Your task to perform on an android device: allow notifications from all sites in the chrome app Image 0: 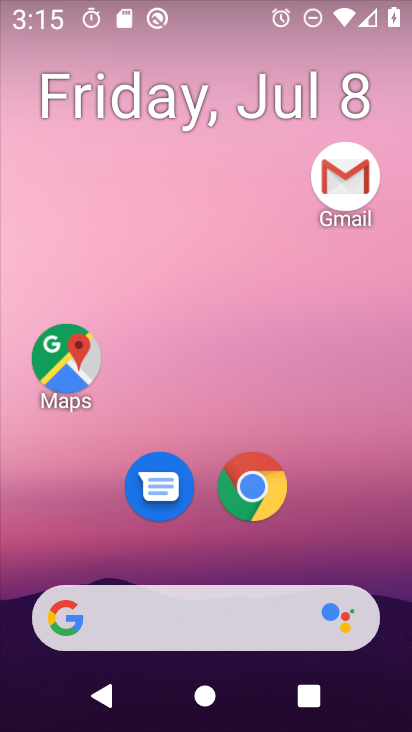
Step 0: drag from (324, 539) to (355, 148)
Your task to perform on an android device: allow notifications from all sites in the chrome app Image 1: 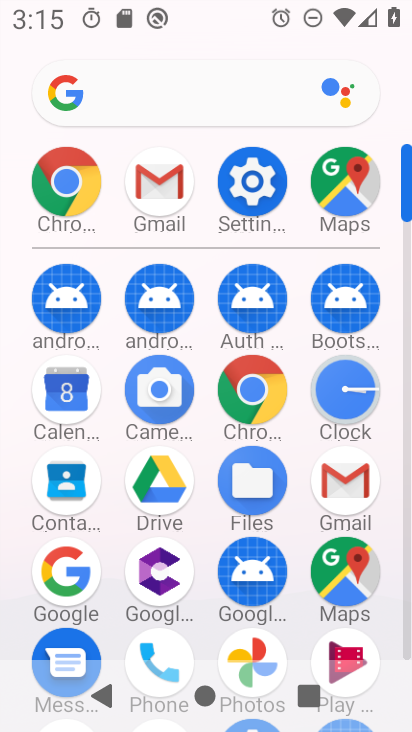
Step 1: click (268, 388)
Your task to perform on an android device: allow notifications from all sites in the chrome app Image 2: 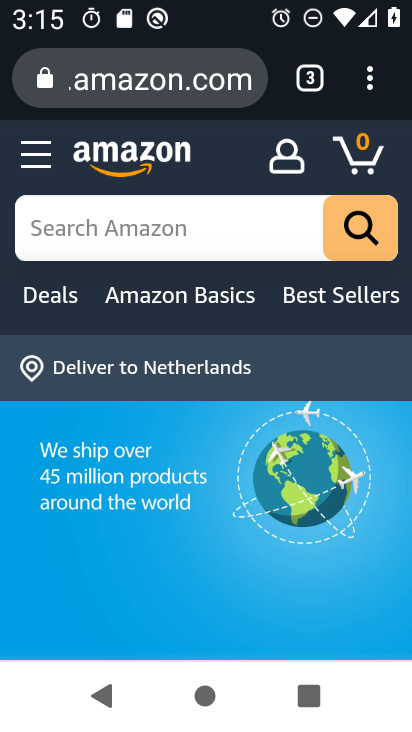
Step 2: click (369, 95)
Your task to perform on an android device: allow notifications from all sites in the chrome app Image 3: 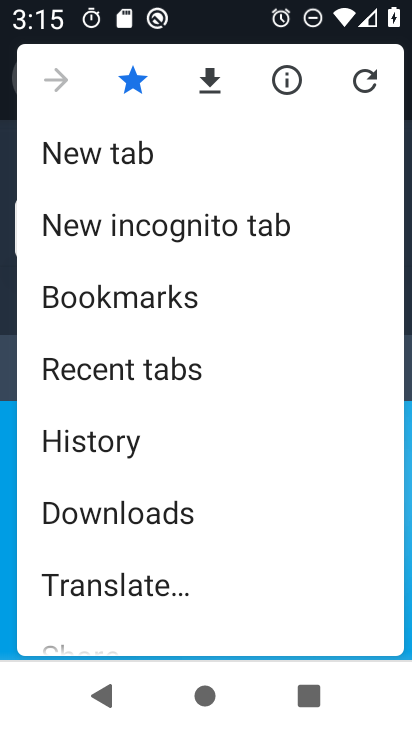
Step 3: drag from (330, 408) to (335, 319)
Your task to perform on an android device: allow notifications from all sites in the chrome app Image 4: 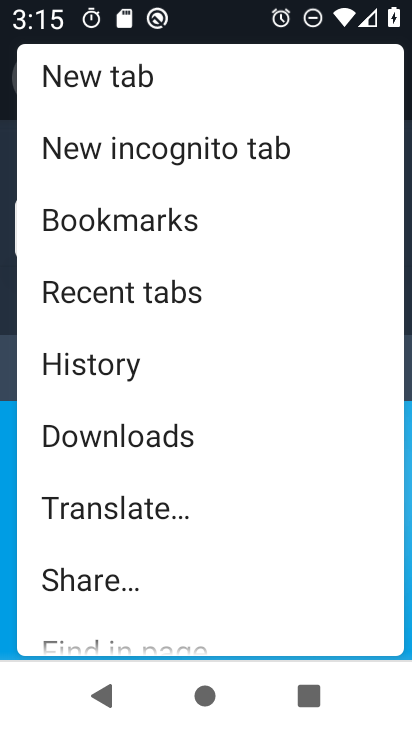
Step 4: drag from (313, 456) to (307, 294)
Your task to perform on an android device: allow notifications from all sites in the chrome app Image 5: 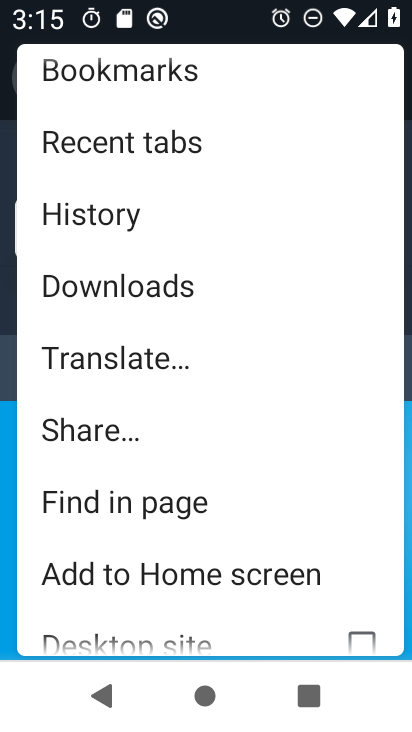
Step 5: drag from (298, 470) to (292, 324)
Your task to perform on an android device: allow notifications from all sites in the chrome app Image 6: 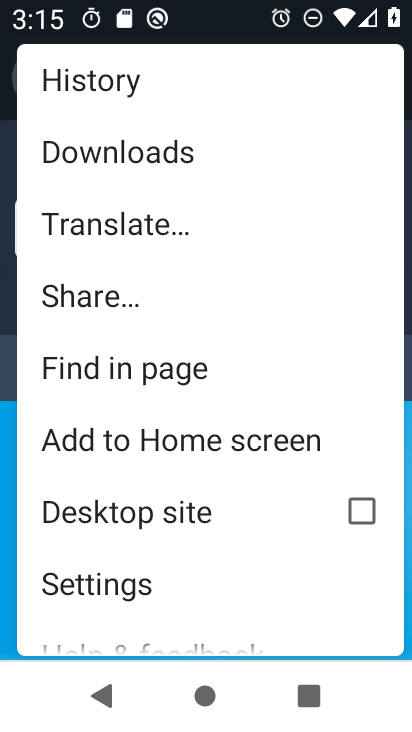
Step 6: drag from (264, 527) to (280, 405)
Your task to perform on an android device: allow notifications from all sites in the chrome app Image 7: 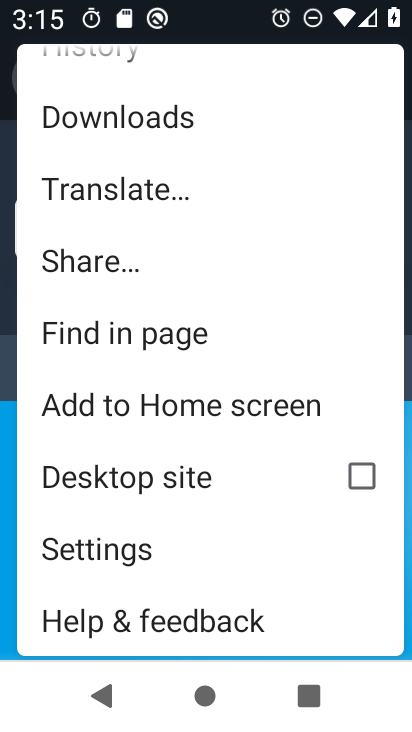
Step 7: click (216, 555)
Your task to perform on an android device: allow notifications from all sites in the chrome app Image 8: 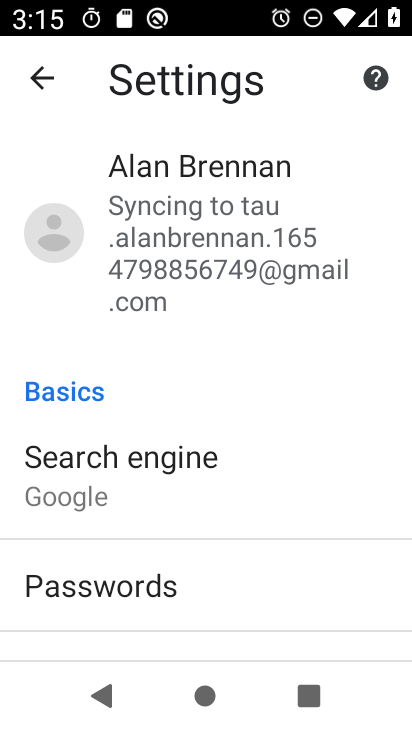
Step 8: drag from (304, 523) to (307, 391)
Your task to perform on an android device: allow notifications from all sites in the chrome app Image 9: 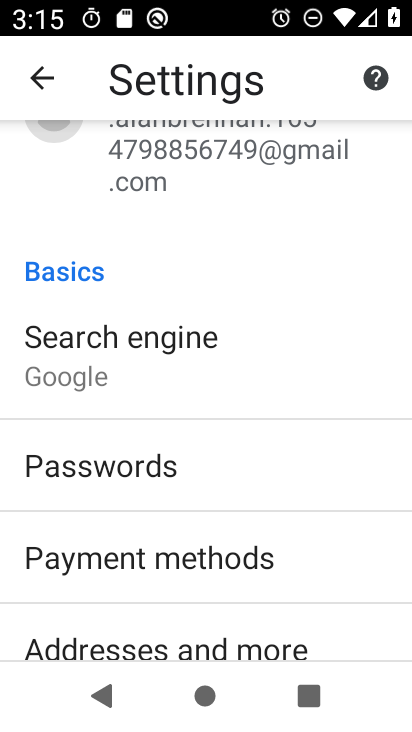
Step 9: drag from (323, 530) to (332, 391)
Your task to perform on an android device: allow notifications from all sites in the chrome app Image 10: 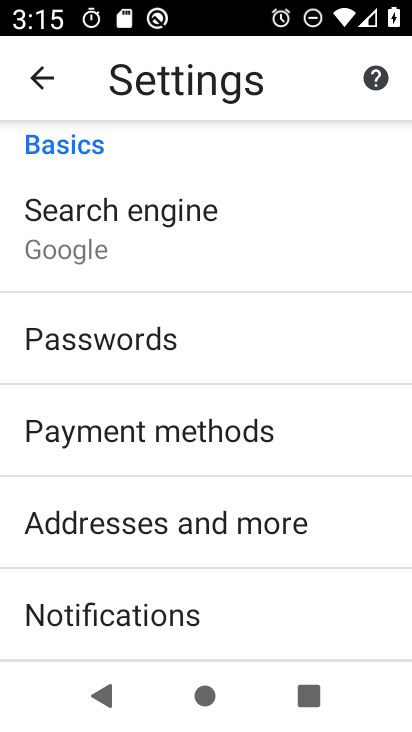
Step 10: drag from (347, 568) to (338, 394)
Your task to perform on an android device: allow notifications from all sites in the chrome app Image 11: 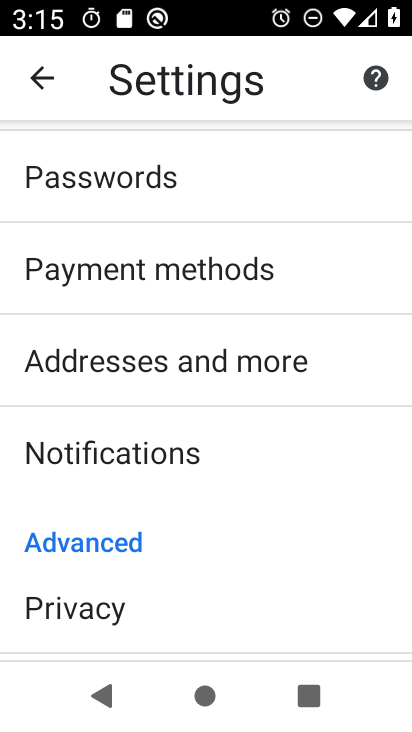
Step 11: drag from (312, 510) to (313, 378)
Your task to perform on an android device: allow notifications from all sites in the chrome app Image 12: 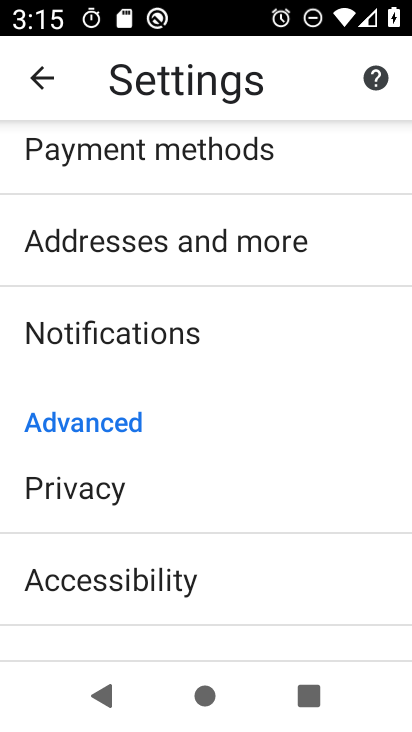
Step 12: drag from (247, 502) to (237, 318)
Your task to perform on an android device: allow notifications from all sites in the chrome app Image 13: 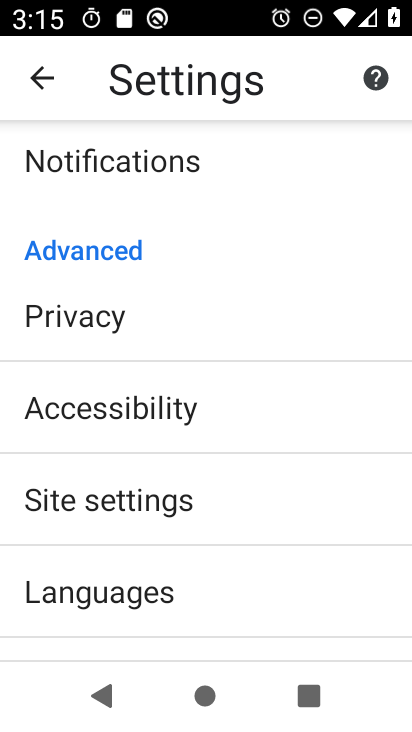
Step 13: click (260, 490)
Your task to perform on an android device: allow notifications from all sites in the chrome app Image 14: 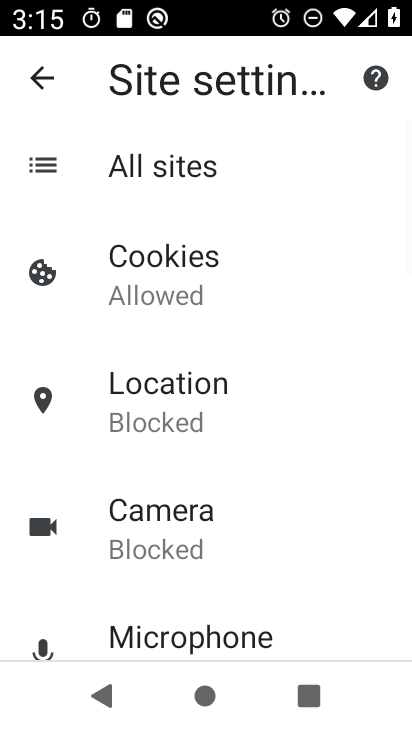
Step 14: drag from (324, 506) to (333, 357)
Your task to perform on an android device: allow notifications from all sites in the chrome app Image 15: 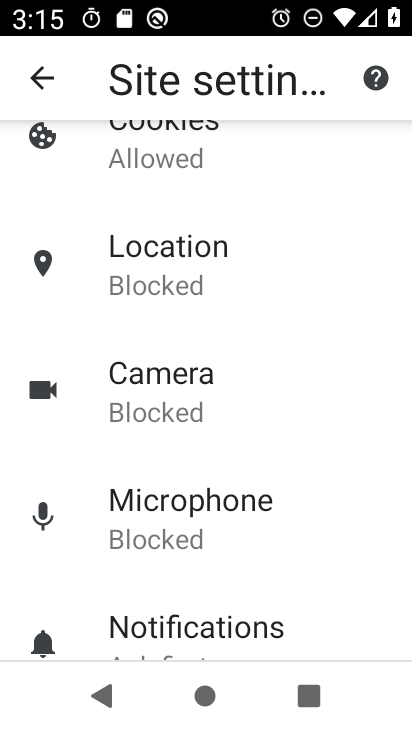
Step 15: drag from (330, 541) to (343, 368)
Your task to perform on an android device: allow notifications from all sites in the chrome app Image 16: 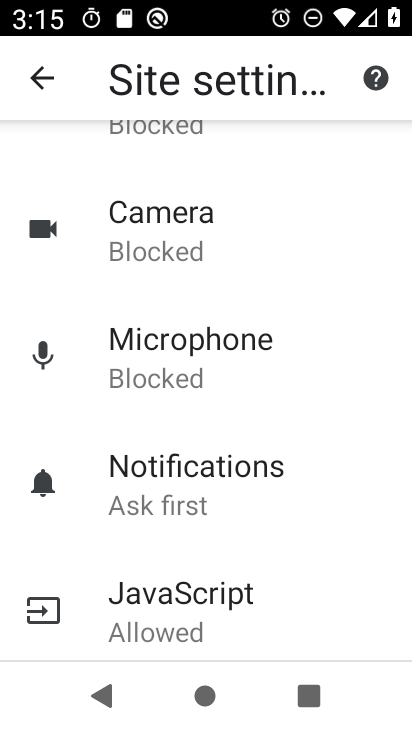
Step 16: drag from (327, 528) to (326, 383)
Your task to perform on an android device: allow notifications from all sites in the chrome app Image 17: 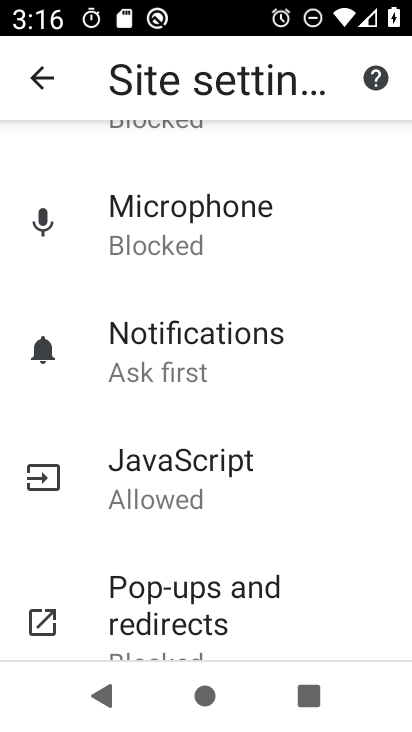
Step 17: drag from (324, 511) to (323, 369)
Your task to perform on an android device: allow notifications from all sites in the chrome app Image 18: 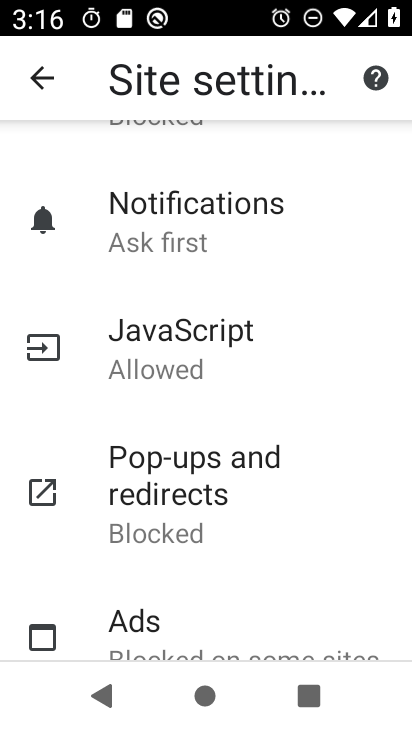
Step 18: drag from (313, 501) to (331, 390)
Your task to perform on an android device: allow notifications from all sites in the chrome app Image 19: 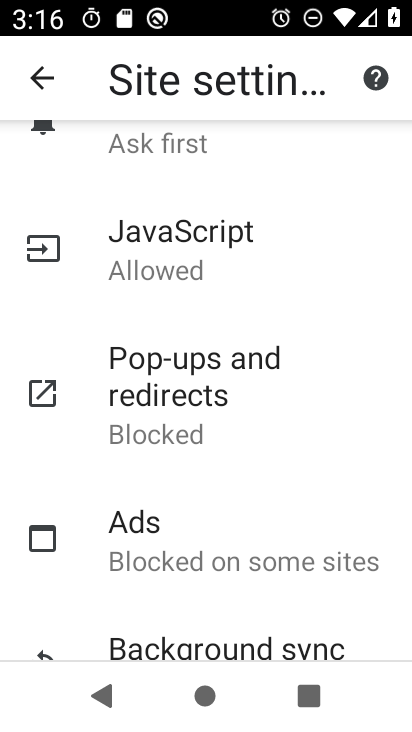
Step 19: drag from (303, 471) to (298, 340)
Your task to perform on an android device: allow notifications from all sites in the chrome app Image 20: 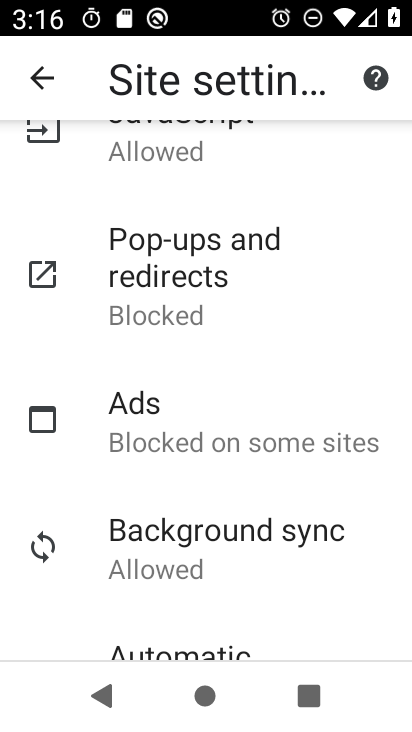
Step 20: drag from (313, 577) to (318, 347)
Your task to perform on an android device: allow notifications from all sites in the chrome app Image 21: 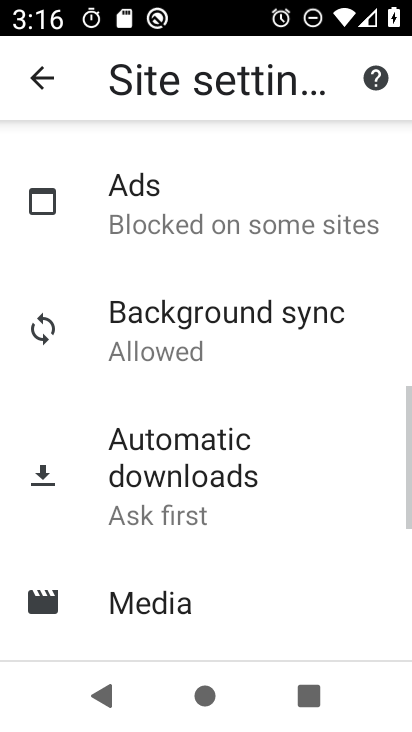
Step 21: drag from (305, 244) to (316, 498)
Your task to perform on an android device: allow notifications from all sites in the chrome app Image 22: 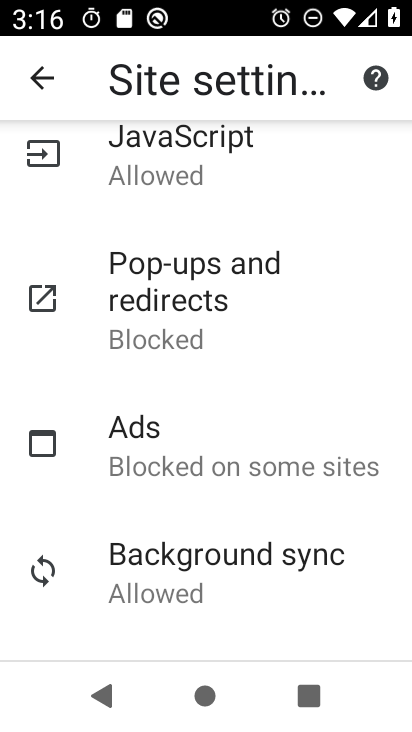
Step 22: drag from (340, 240) to (324, 434)
Your task to perform on an android device: allow notifications from all sites in the chrome app Image 23: 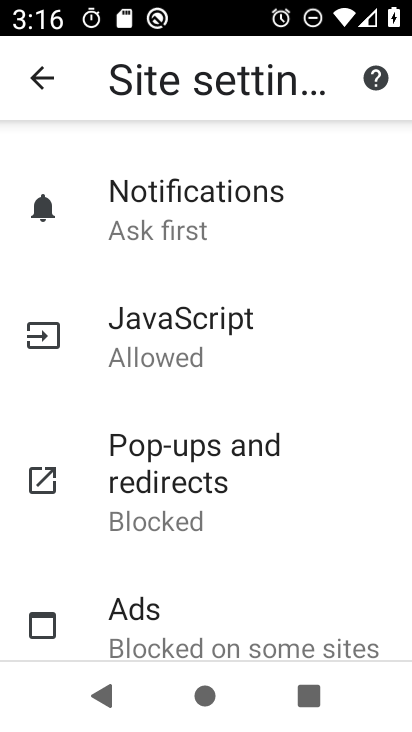
Step 23: click (268, 209)
Your task to perform on an android device: allow notifications from all sites in the chrome app Image 24: 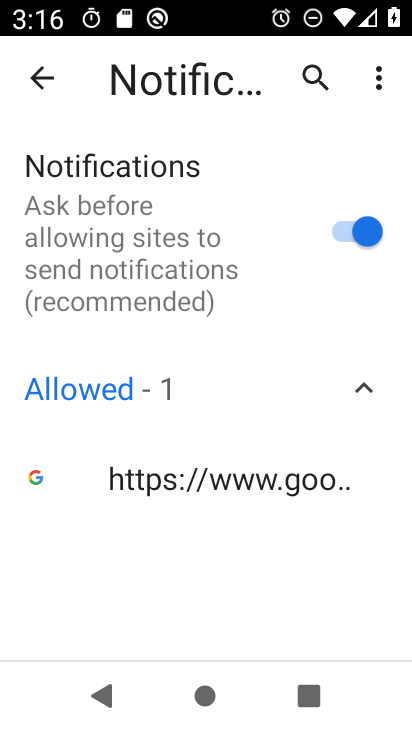
Step 24: task complete